Your task to perform on an android device: open app "DuckDuckGo Privacy Browser" (install if not already installed) and enter user name: "cleaving@outlook.com" and password: "freighters" Image 0: 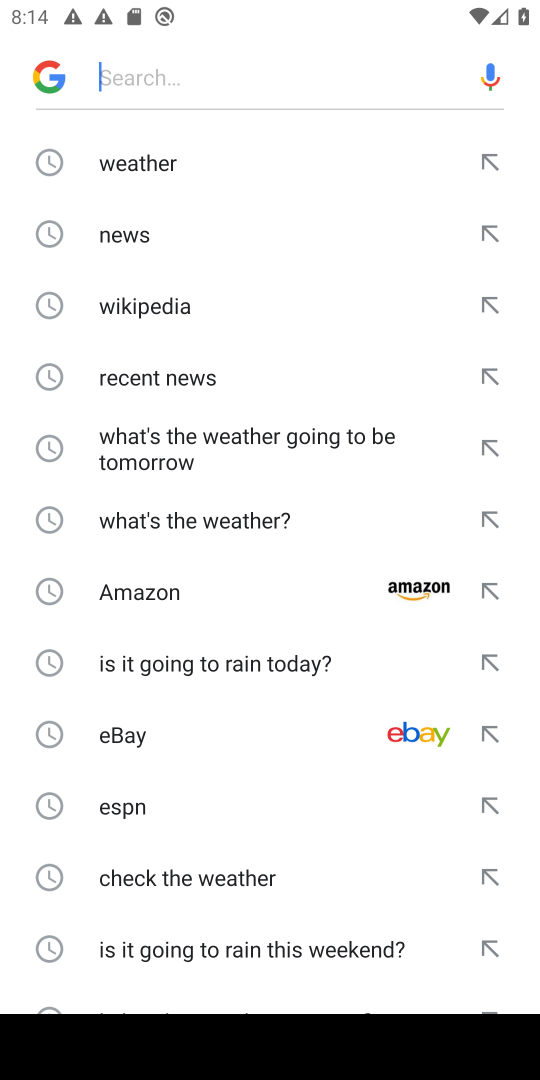
Step 0: press home button
Your task to perform on an android device: open app "DuckDuckGo Privacy Browser" (install if not already installed) and enter user name: "cleaving@outlook.com" and password: "freighters" Image 1: 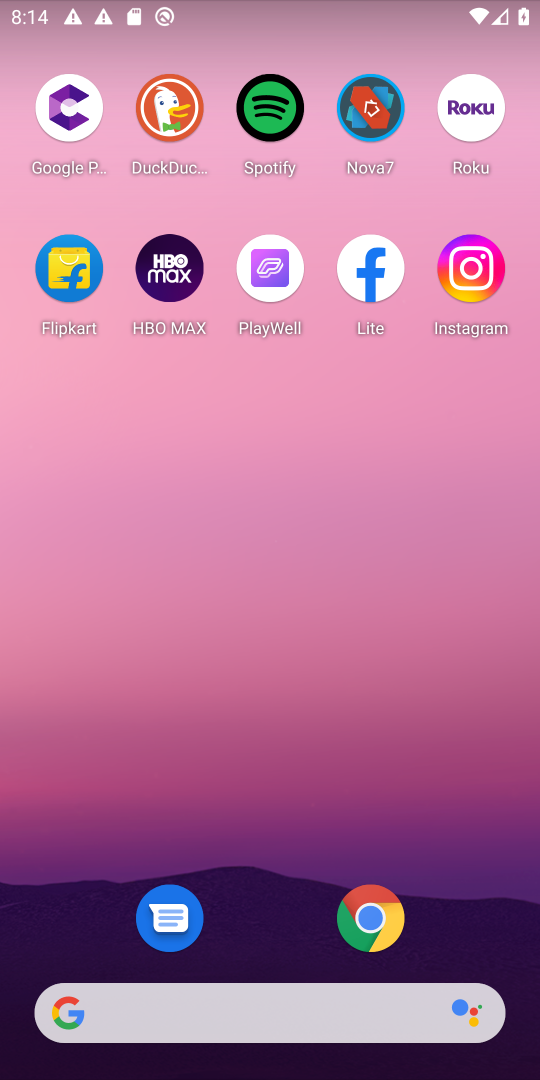
Step 1: press home button
Your task to perform on an android device: open app "DuckDuckGo Privacy Browser" (install if not already installed) and enter user name: "cleaving@outlook.com" and password: "freighters" Image 2: 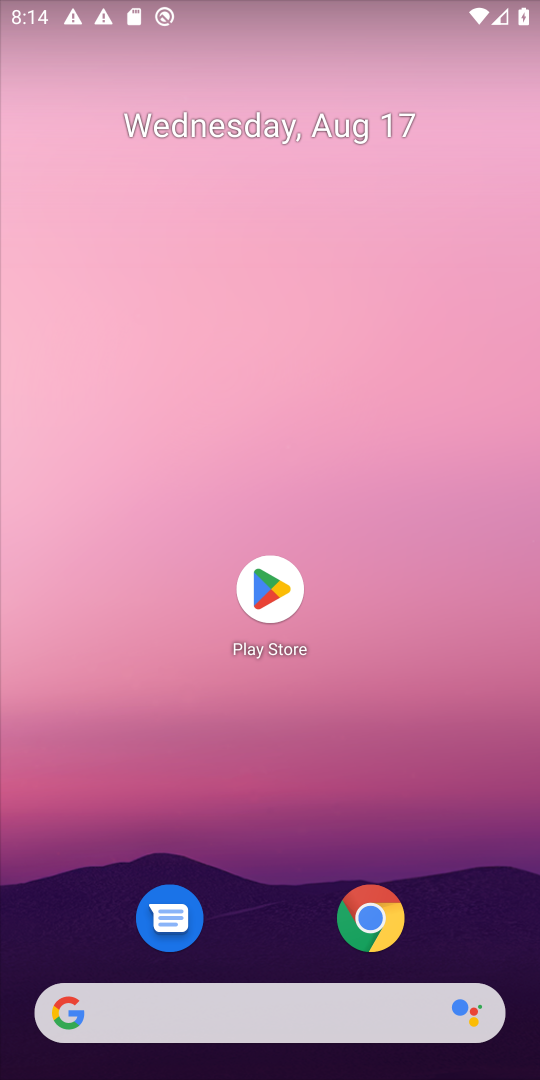
Step 2: click (263, 597)
Your task to perform on an android device: open app "DuckDuckGo Privacy Browser" (install if not already installed) and enter user name: "cleaving@outlook.com" and password: "freighters" Image 3: 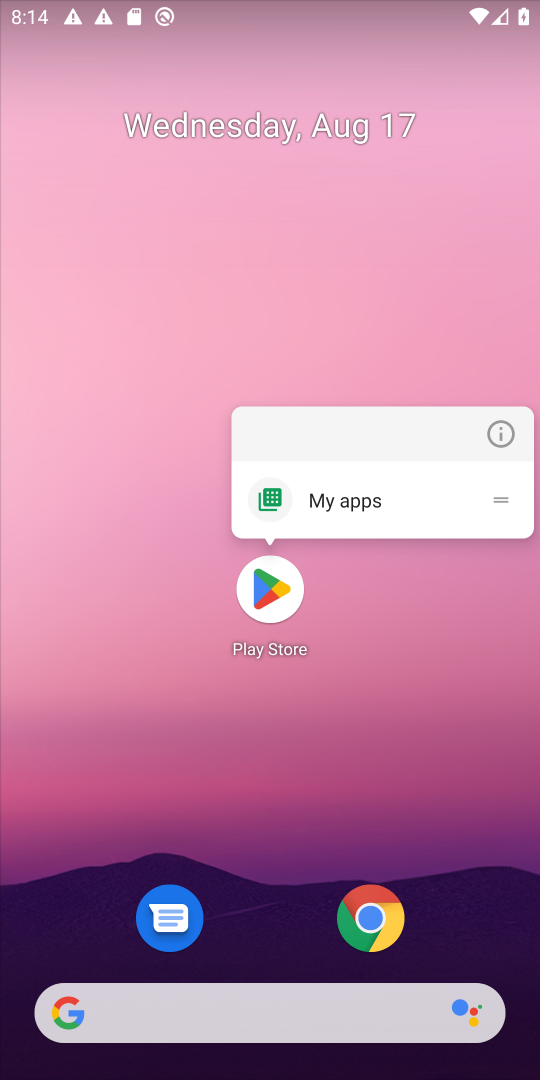
Step 3: click (263, 602)
Your task to perform on an android device: open app "DuckDuckGo Privacy Browser" (install if not already installed) and enter user name: "cleaving@outlook.com" and password: "freighters" Image 4: 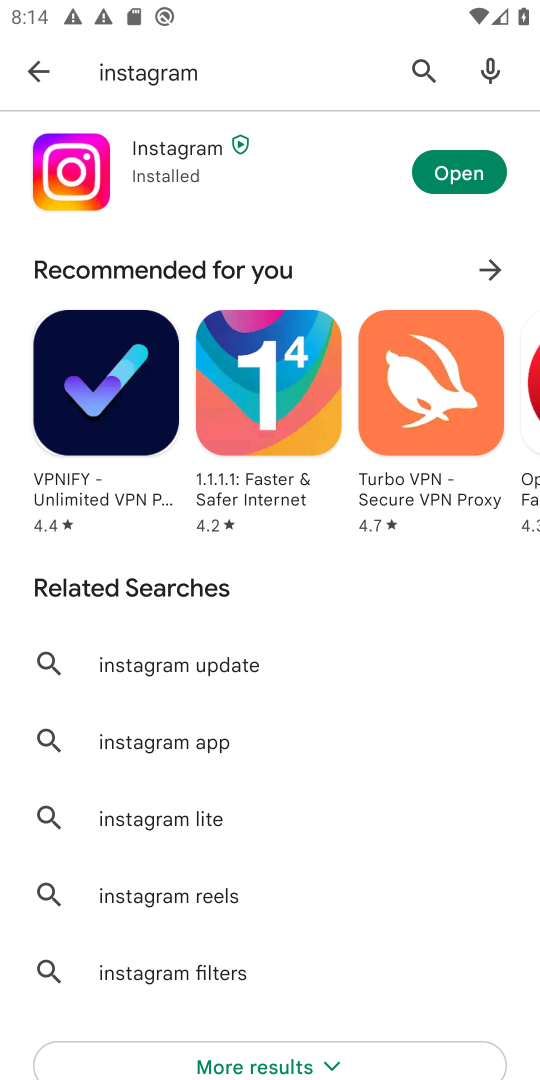
Step 4: click (413, 57)
Your task to perform on an android device: open app "DuckDuckGo Privacy Browser" (install if not already installed) and enter user name: "cleaving@outlook.com" and password: "freighters" Image 5: 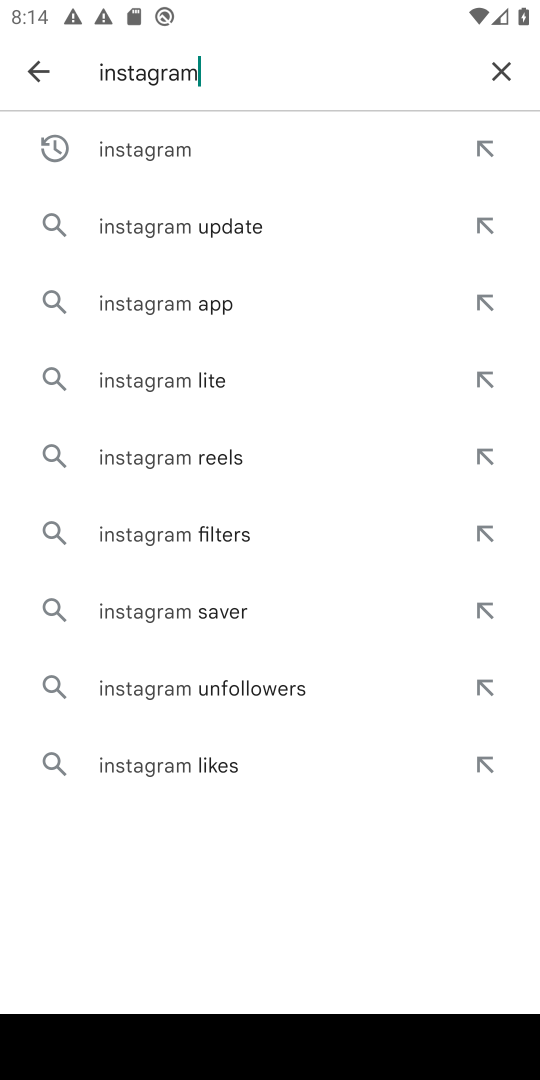
Step 5: click (501, 70)
Your task to perform on an android device: open app "DuckDuckGo Privacy Browser" (install if not already installed) and enter user name: "cleaving@outlook.com" and password: "freighters" Image 6: 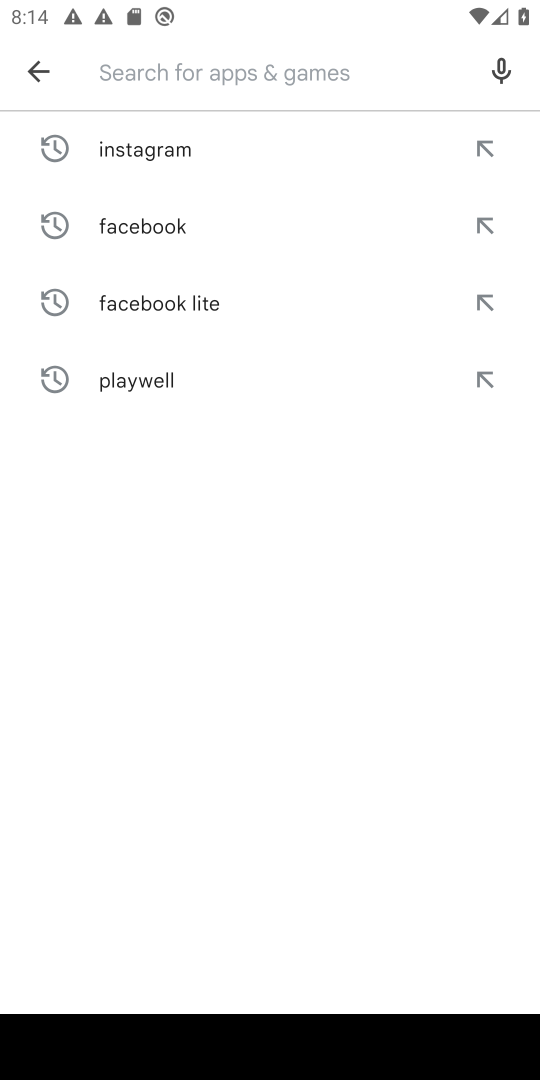
Step 6: type "DuckDuckGo Privacy Browser"
Your task to perform on an android device: open app "DuckDuckGo Privacy Browser" (install if not already installed) and enter user name: "cleaving@outlook.com" and password: "freighters" Image 7: 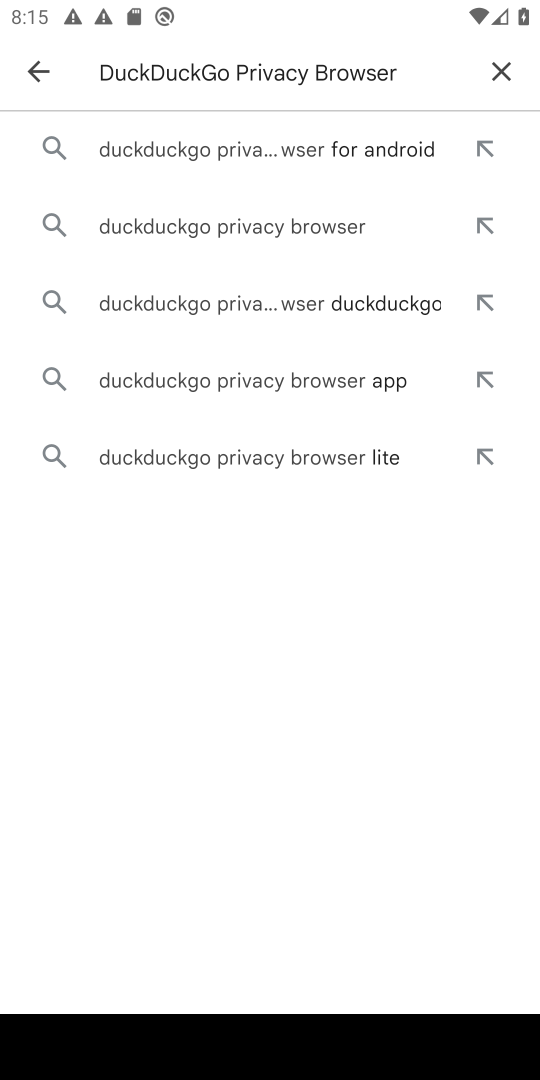
Step 7: click (353, 142)
Your task to perform on an android device: open app "DuckDuckGo Privacy Browser" (install if not already installed) and enter user name: "cleaving@outlook.com" and password: "freighters" Image 8: 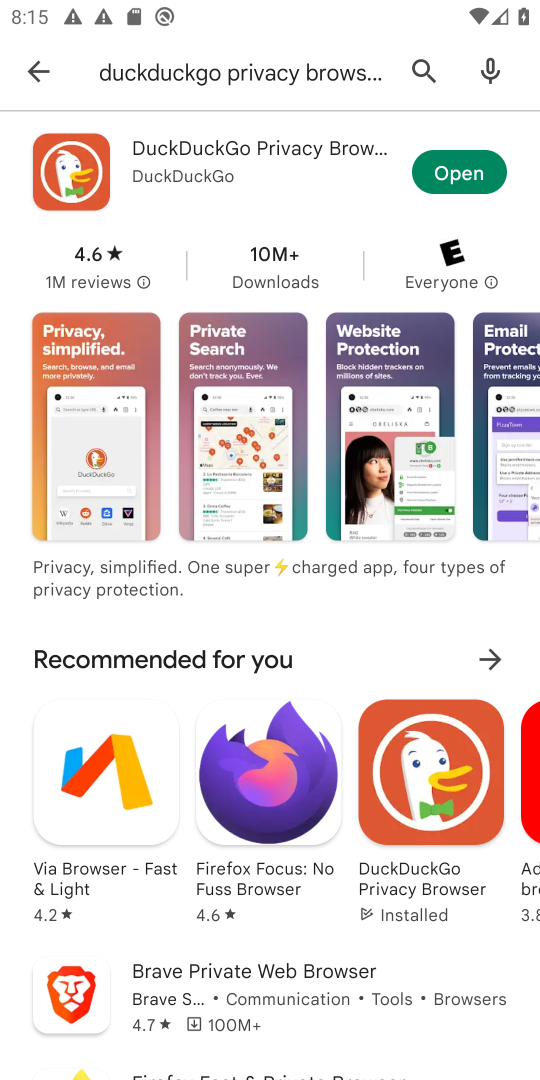
Step 8: click (453, 178)
Your task to perform on an android device: open app "DuckDuckGo Privacy Browser" (install if not already installed) and enter user name: "cleaving@outlook.com" and password: "freighters" Image 9: 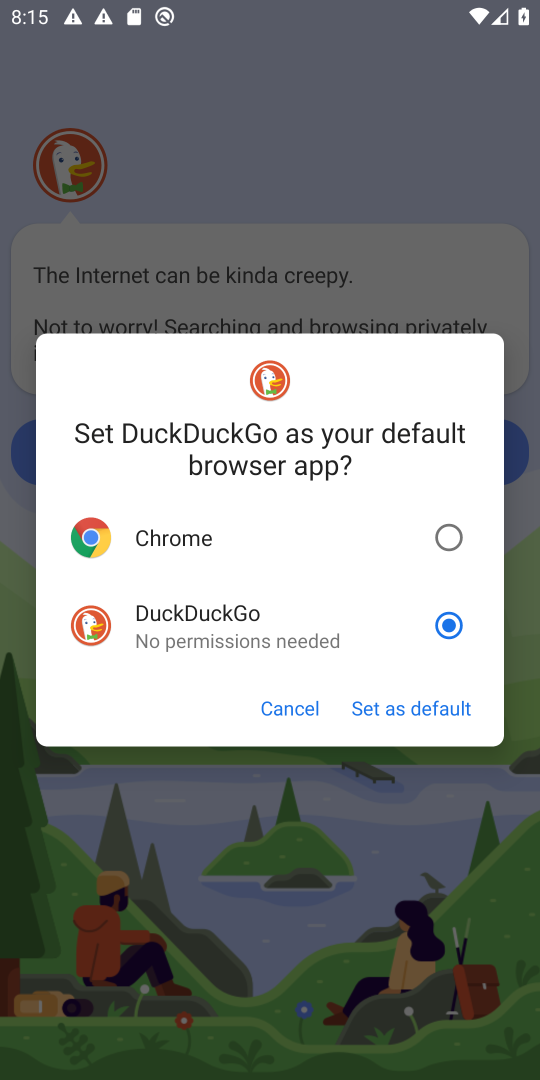
Step 9: task complete